Your task to perform on an android device: allow notifications from all sites in the chrome app Image 0: 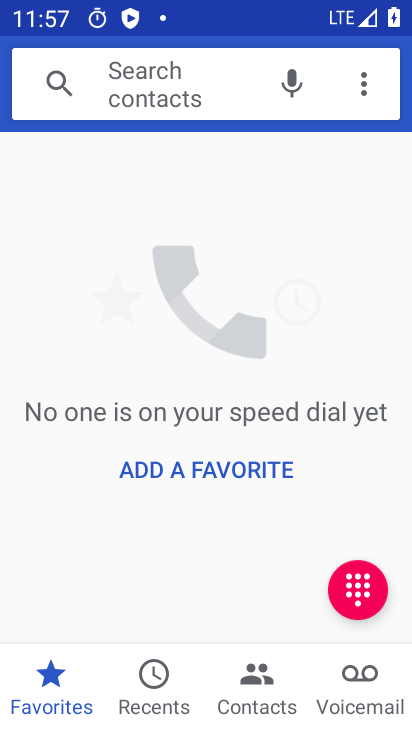
Step 0: press home button
Your task to perform on an android device: allow notifications from all sites in the chrome app Image 1: 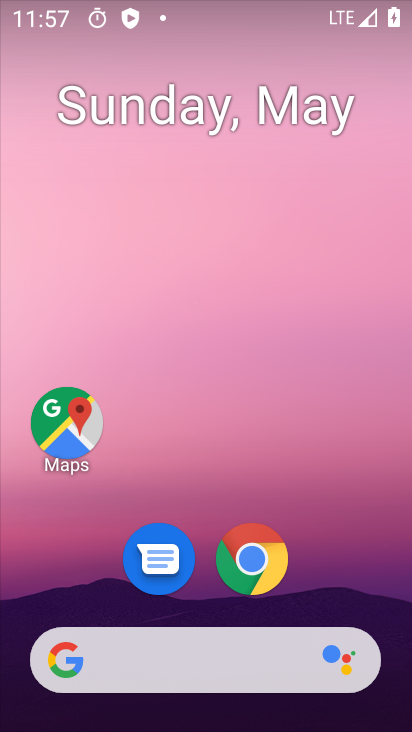
Step 1: click (287, 262)
Your task to perform on an android device: allow notifications from all sites in the chrome app Image 2: 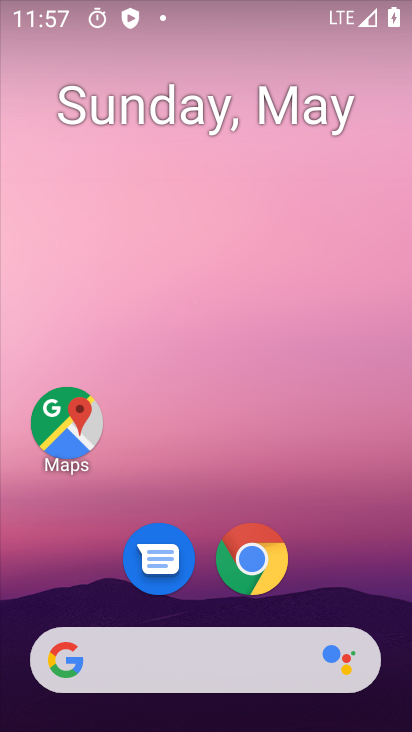
Step 2: drag from (293, 654) to (268, 95)
Your task to perform on an android device: allow notifications from all sites in the chrome app Image 3: 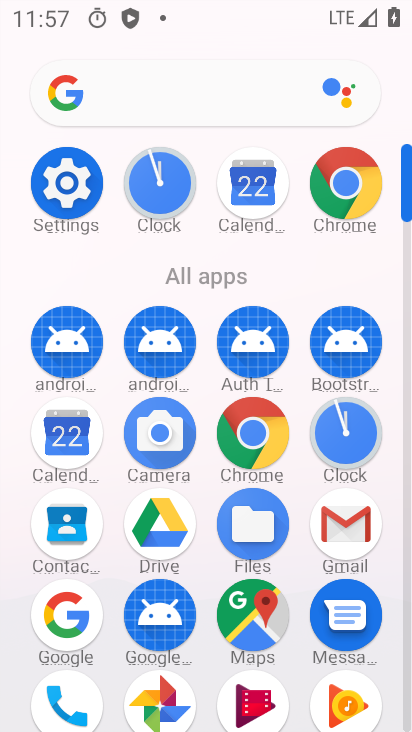
Step 3: click (228, 432)
Your task to perform on an android device: allow notifications from all sites in the chrome app Image 4: 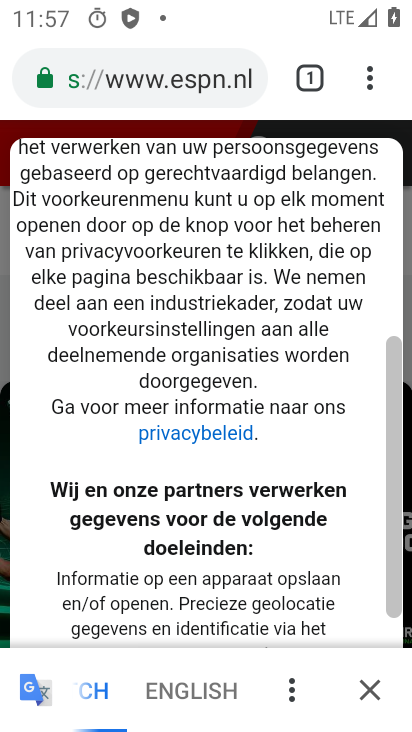
Step 4: drag from (367, 77) to (178, 611)
Your task to perform on an android device: allow notifications from all sites in the chrome app Image 5: 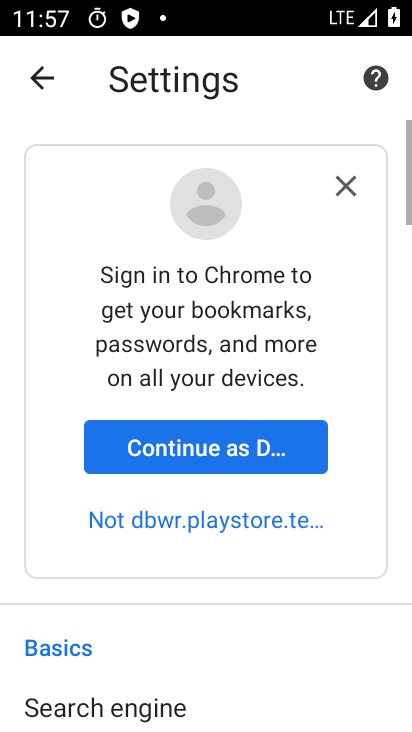
Step 5: drag from (216, 647) to (267, 43)
Your task to perform on an android device: allow notifications from all sites in the chrome app Image 6: 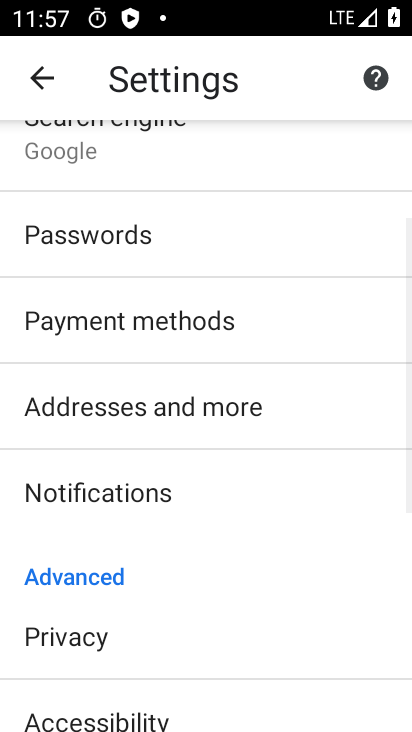
Step 6: drag from (296, 697) to (264, 71)
Your task to perform on an android device: allow notifications from all sites in the chrome app Image 7: 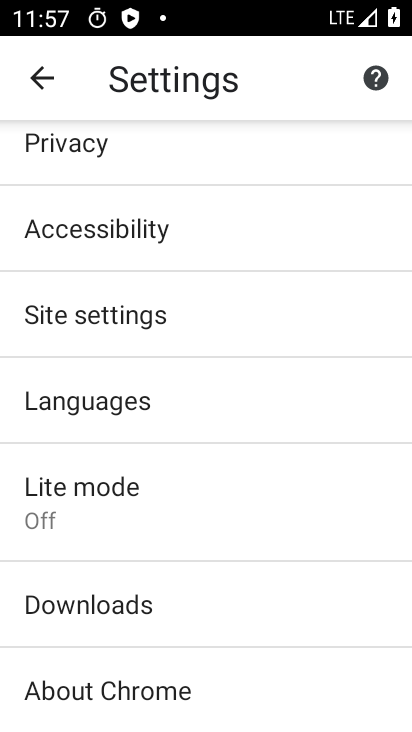
Step 7: click (167, 332)
Your task to perform on an android device: allow notifications from all sites in the chrome app Image 8: 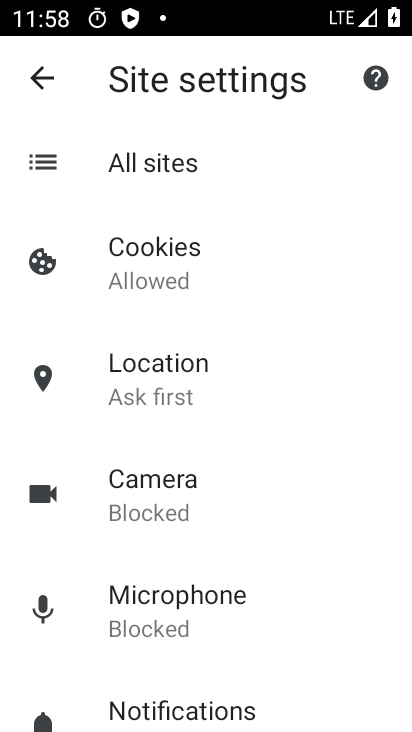
Step 8: click (290, 703)
Your task to perform on an android device: allow notifications from all sites in the chrome app Image 9: 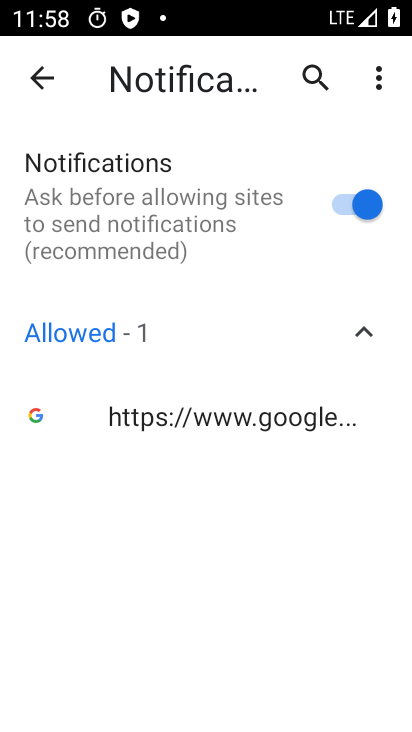
Step 9: task complete